Your task to perform on an android device: change the clock display to digital Image 0: 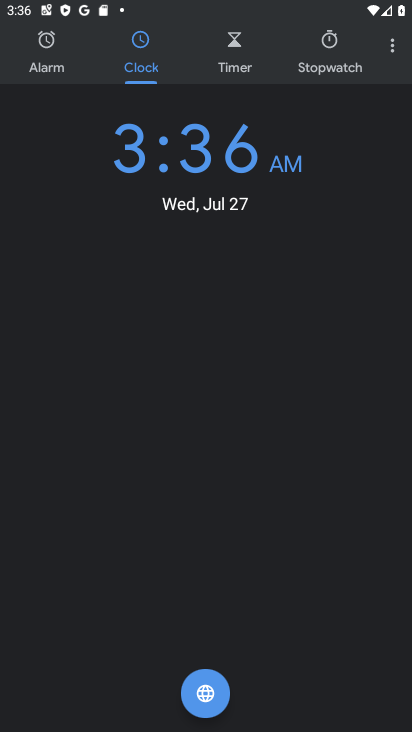
Step 0: click (385, 57)
Your task to perform on an android device: change the clock display to digital Image 1: 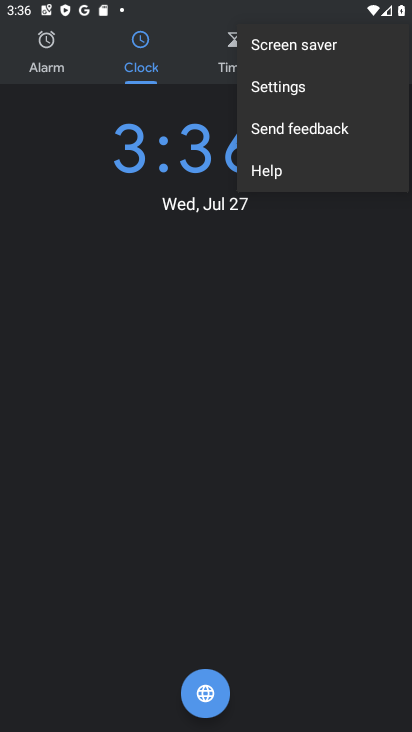
Step 1: click (301, 84)
Your task to perform on an android device: change the clock display to digital Image 2: 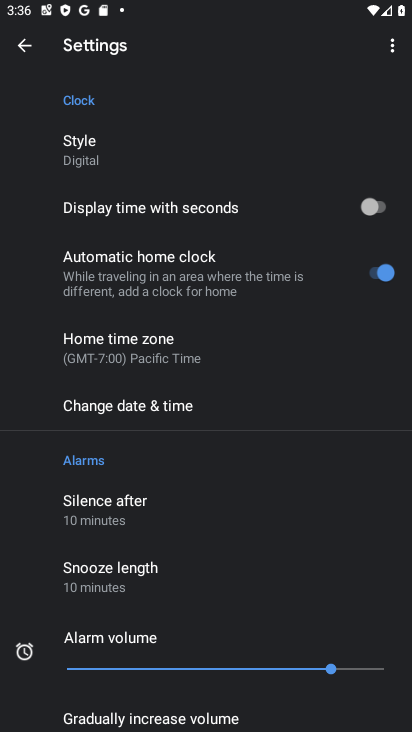
Step 2: click (91, 139)
Your task to perform on an android device: change the clock display to digital Image 3: 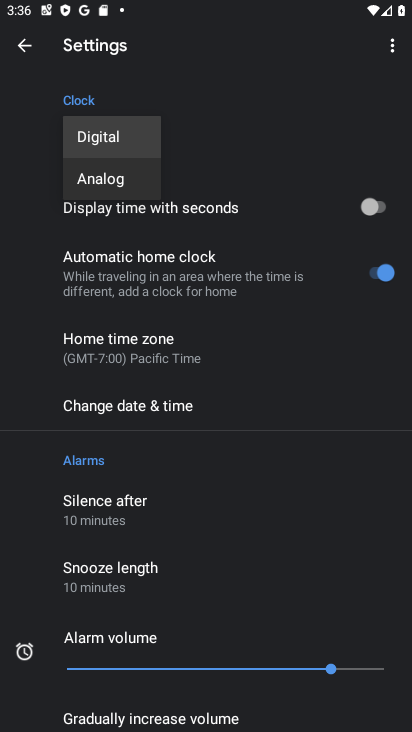
Step 3: click (92, 177)
Your task to perform on an android device: change the clock display to digital Image 4: 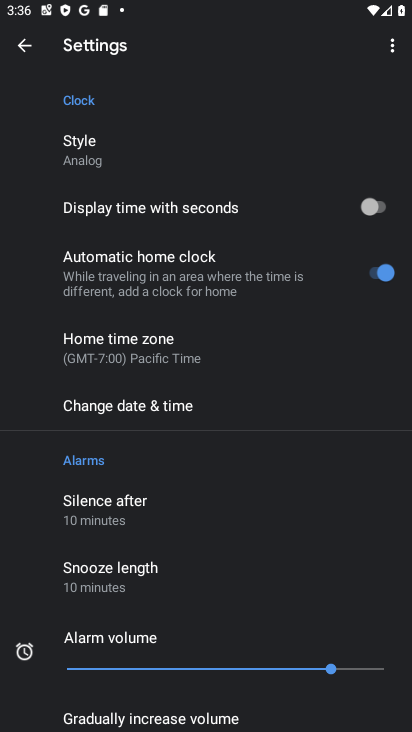
Step 4: task complete